Your task to perform on an android device: open the mobile data screen to see how much data has been used Image 0: 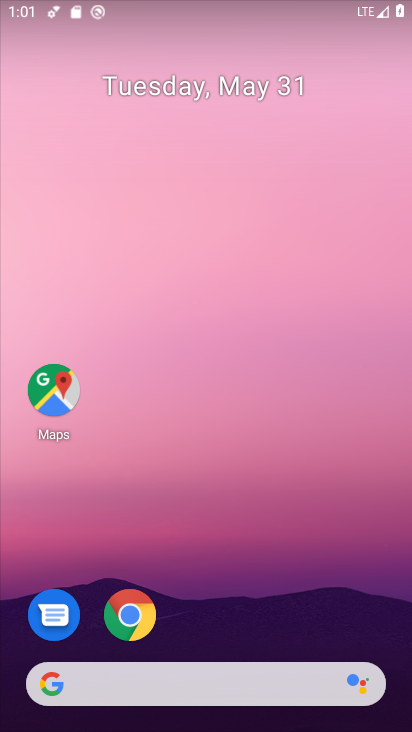
Step 0: drag from (208, 589) to (264, 36)
Your task to perform on an android device: open the mobile data screen to see how much data has been used Image 1: 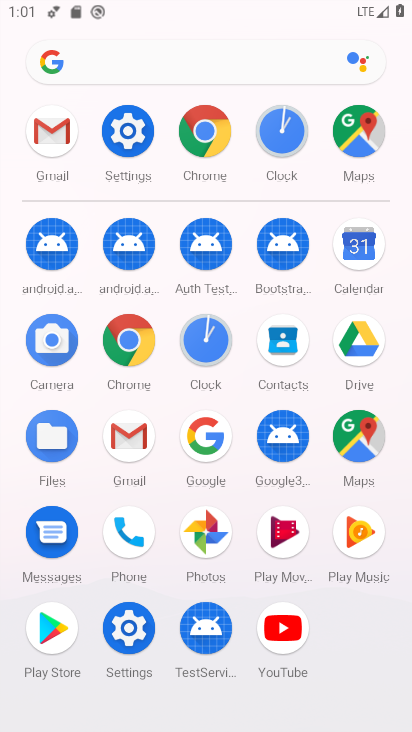
Step 1: click (135, 147)
Your task to perform on an android device: open the mobile data screen to see how much data has been used Image 2: 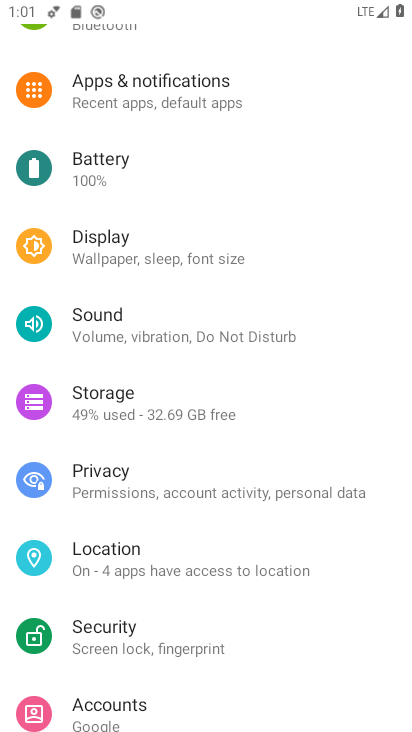
Step 2: drag from (179, 167) to (47, 722)
Your task to perform on an android device: open the mobile data screen to see how much data has been used Image 3: 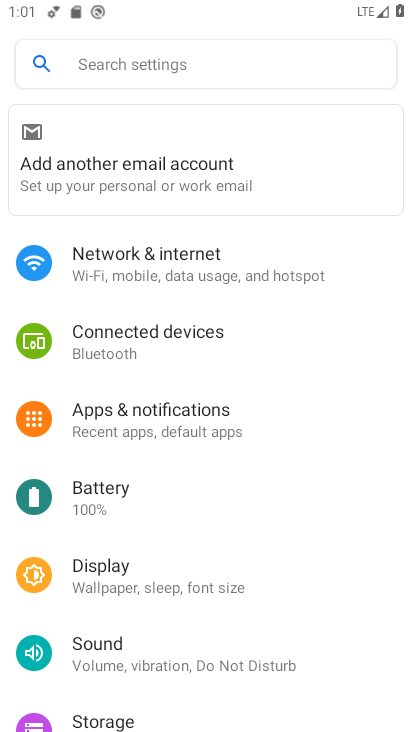
Step 3: drag from (199, 321) to (200, 713)
Your task to perform on an android device: open the mobile data screen to see how much data has been used Image 4: 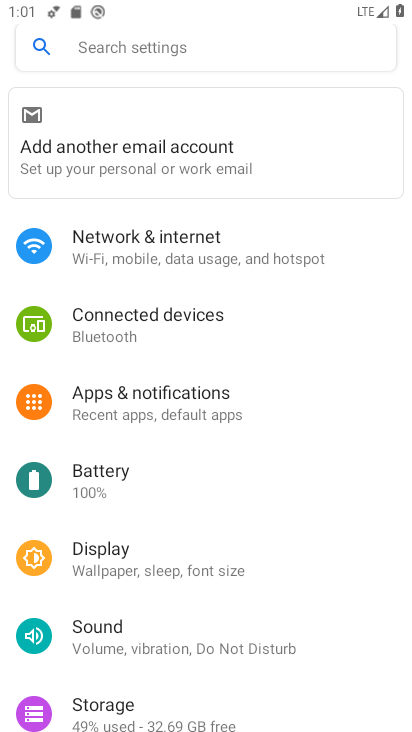
Step 4: click (182, 232)
Your task to perform on an android device: open the mobile data screen to see how much data has been used Image 5: 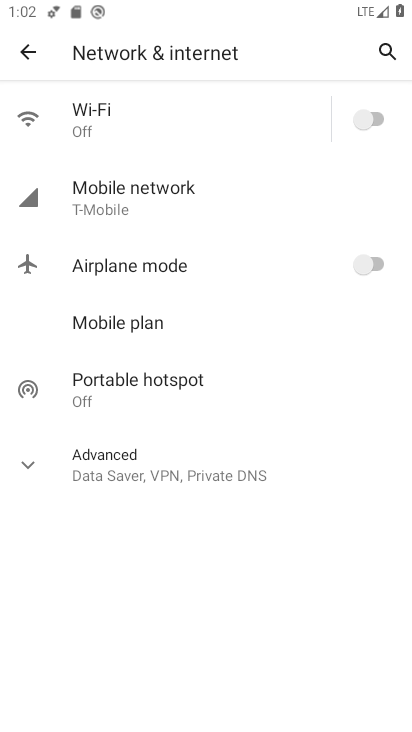
Step 5: click (149, 206)
Your task to perform on an android device: open the mobile data screen to see how much data has been used Image 6: 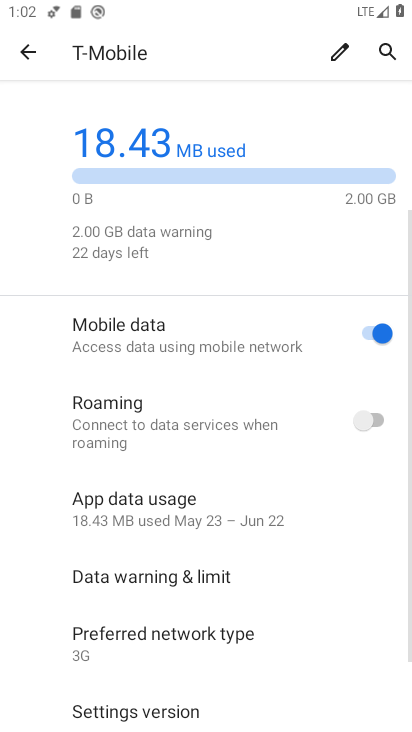
Step 6: click (176, 513)
Your task to perform on an android device: open the mobile data screen to see how much data has been used Image 7: 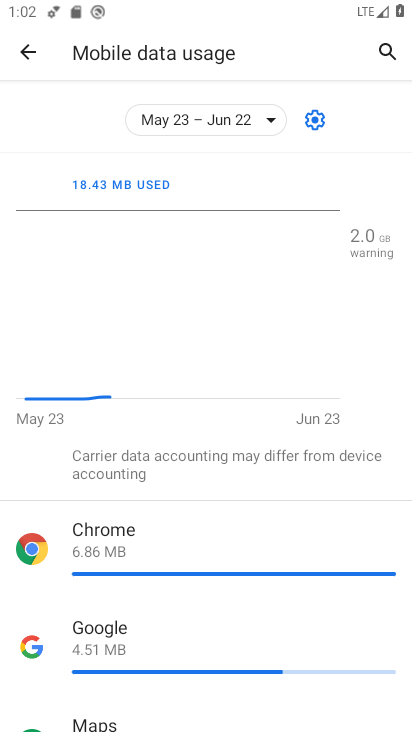
Step 7: task complete